Your task to perform on an android device: Open calendar and show me the fourth week of next month Image 0: 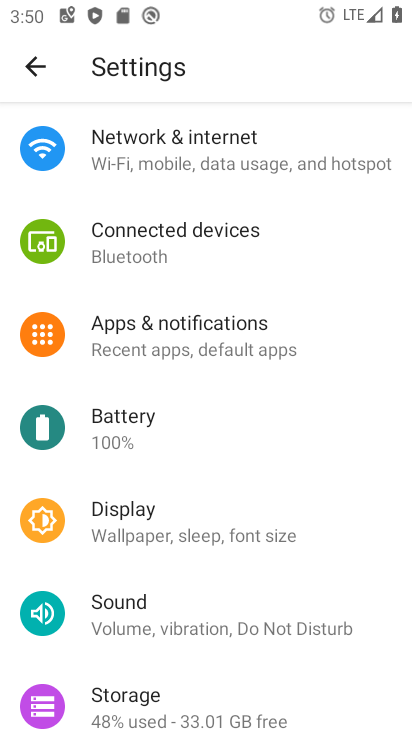
Step 0: press home button
Your task to perform on an android device: Open calendar and show me the fourth week of next month Image 1: 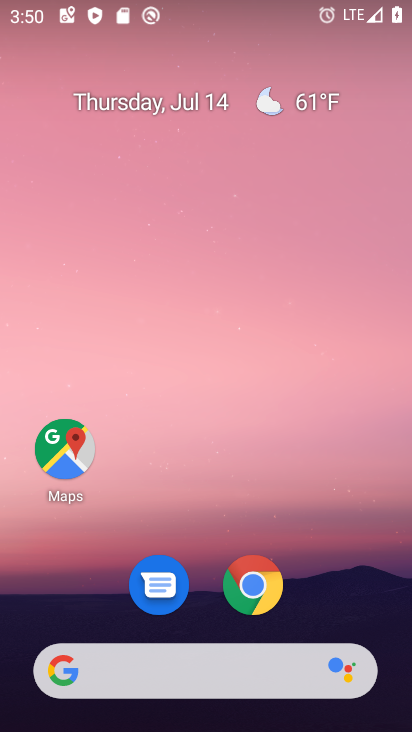
Step 1: drag from (335, 585) to (342, 91)
Your task to perform on an android device: Open calendar and show me the fourth week of next month Image 2: 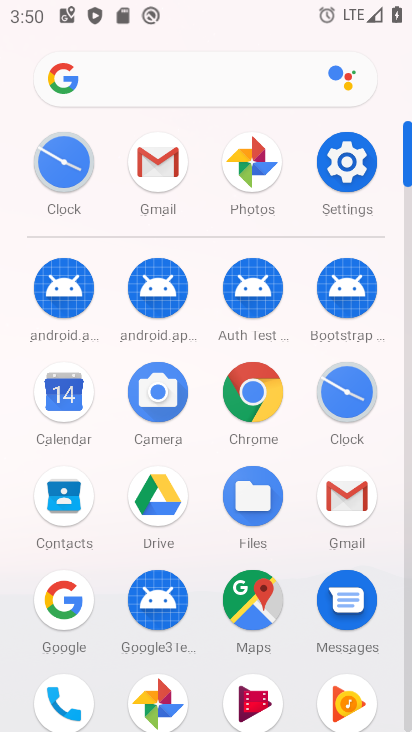
Step 2: click (80, 391)
Your task to perform on an android device: Open calendar and show me the fourth week of next month Image 3: 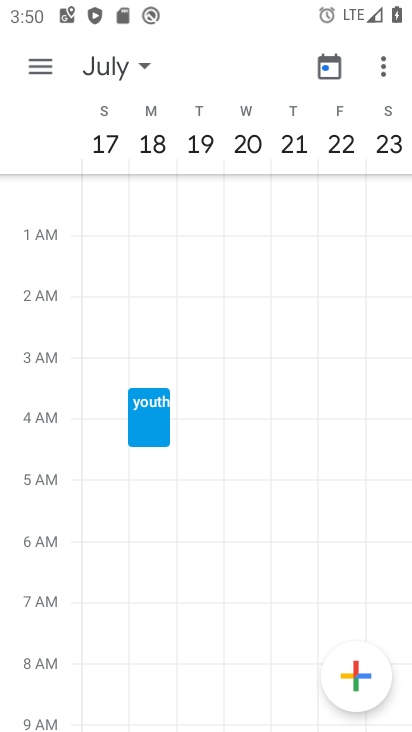
Step 3: task complete